Your task to perform on an android device: turn off picture-in-picture Image 0: 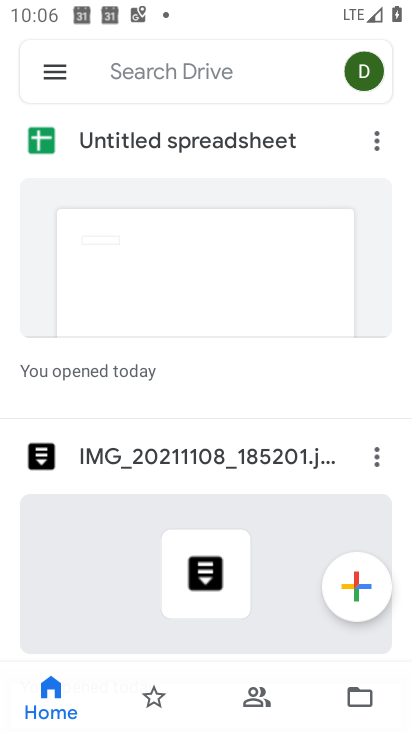
Step 0: press home button
Your task to perform on an android device: turn off picture-in-picture Image 1: 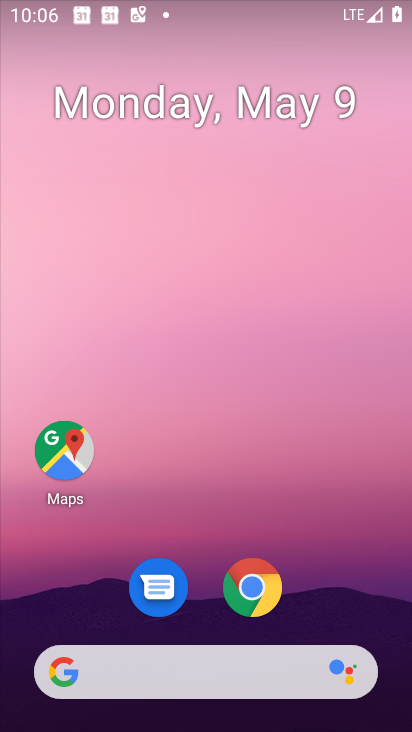
Step 1: click (256, 596)
Your task to perform on an android device: turn off picture-in-picture Image 2: 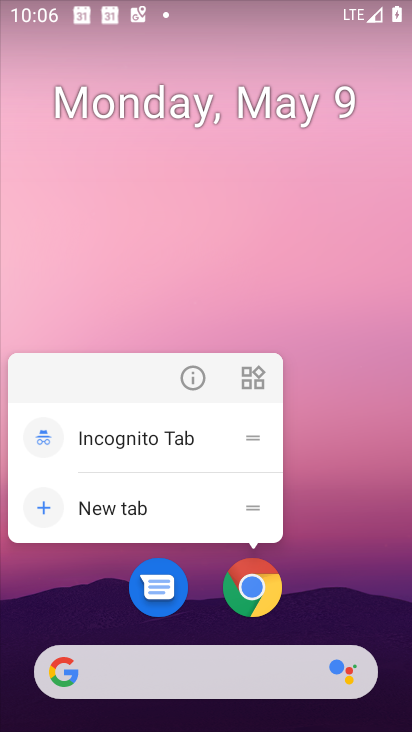
Step 2: click (192, 369)
Your task to perform on an android device: turn off picture-in-picture Image 3: 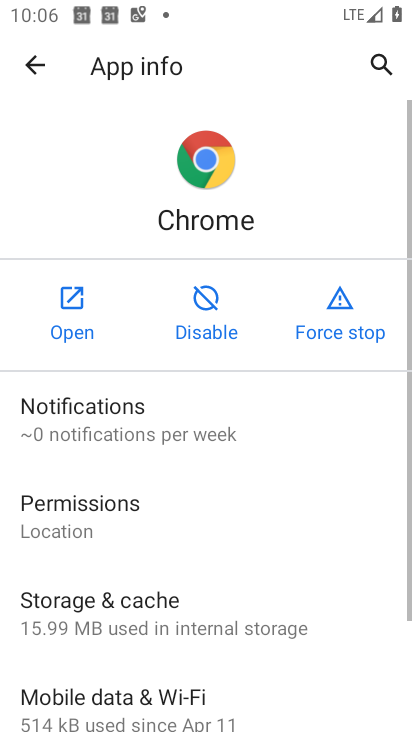
Step 3: drag from (167, 620) to (223, 367)
Your task to perform on an android device: turn off picture-in-picture Image 4: 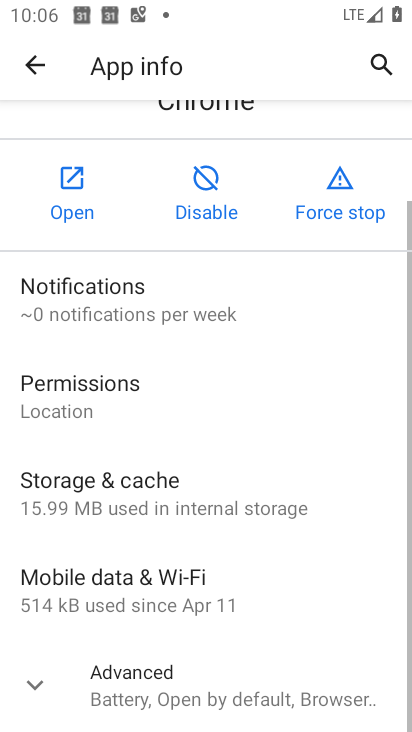
Step 4: drag from (137, 669) to (215, 292)
Your task to perform on an android device: turn off picture-in-picture Image 5: 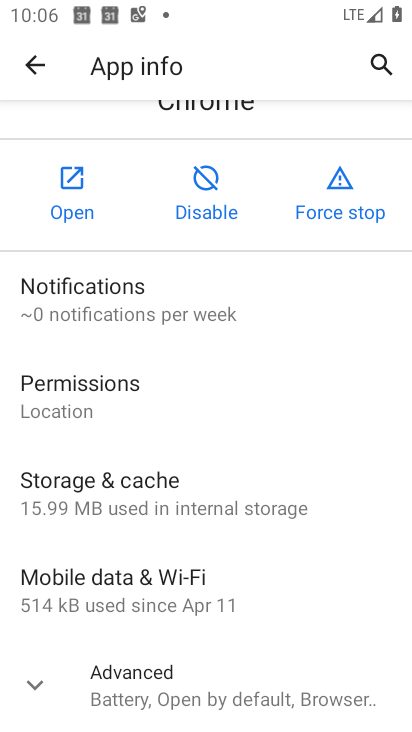
Step 5: click (141, 685)
Your task to perform on an android device: turn off picture-in-picture Image 6: 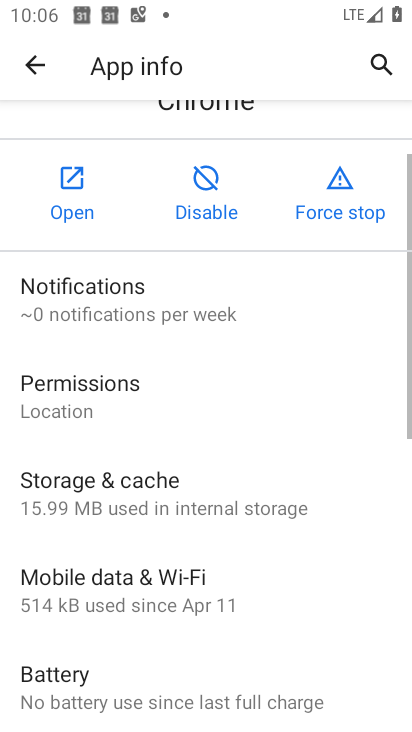
Step 6: drag from (141, 685) to (244, 238)
Your task to perform on an android device: turn off picture-in-picture Image 7: 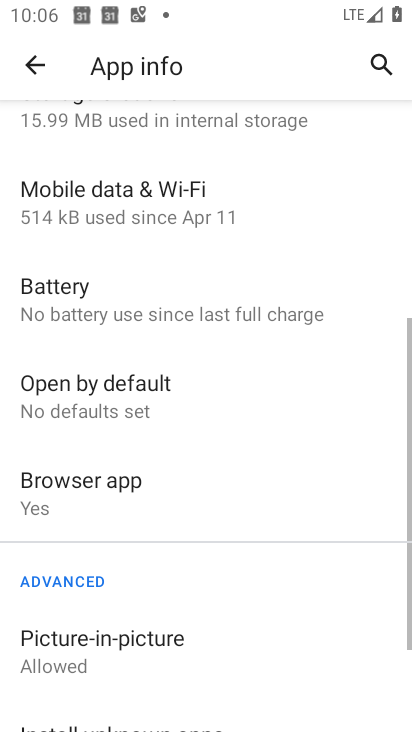
Step 7: drag from (168, 565) to (165, 182)
Your task to perform on an android device: turn off picture-in-picture Image 8: 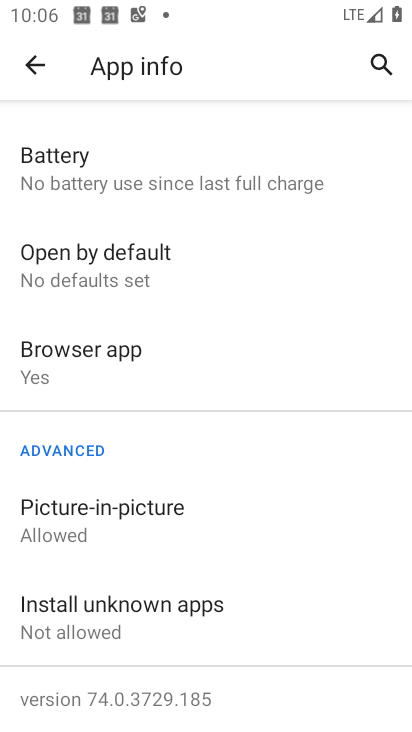
Step 8: click (119, 529)
Your task to perform on an android device: turn off picture-in-picture Image 9: 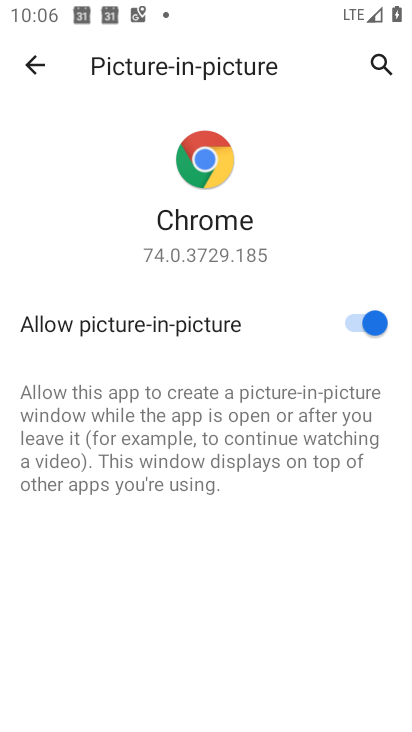
Step 9: click (361, 321)
Your task to perform on an android device: turn off picture-in-picture Image 10: 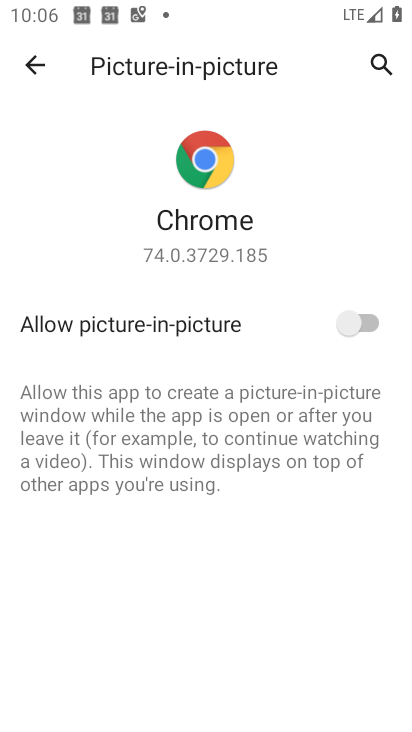
Step 10: task complete